Your task to perform on an android device: toggle show notifications on the lock screen Image 0: 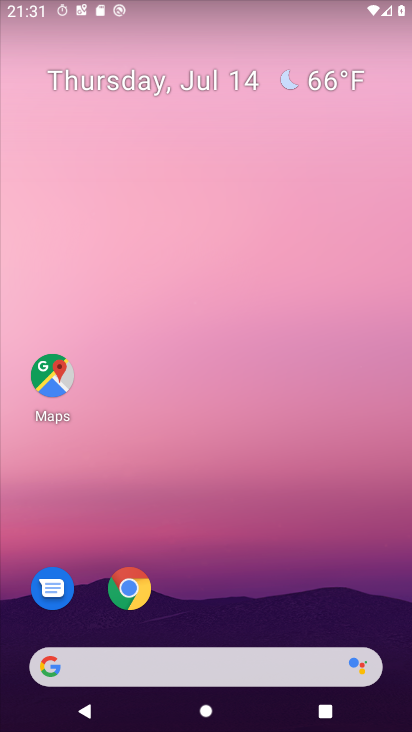
Step 0: drag from (361, 568) to (368, 39)
Your task to perform on an android device: toggle show notifications on the lock screen Image 1: 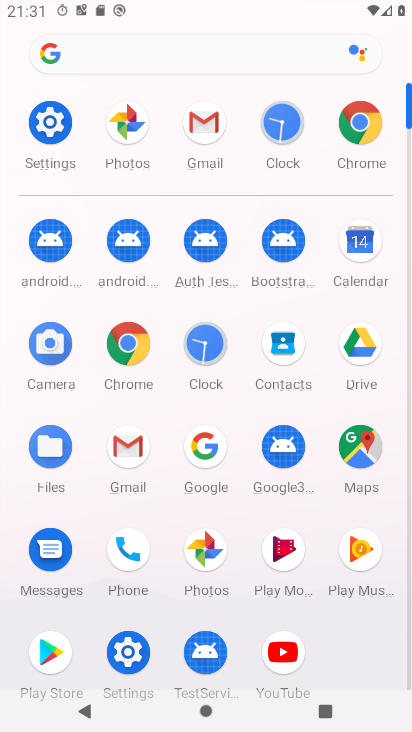
Step 1: click (54, 131)
Your task to perform on an android device: toggle show notifications on the lock screen Image 2: 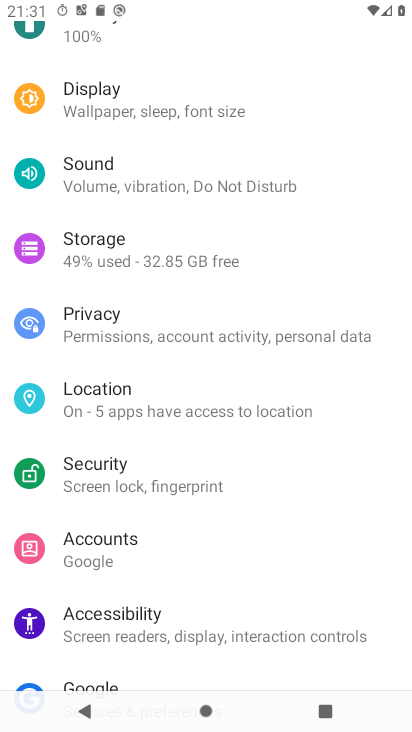
Step 2: drag from (338, 198) to (346, 292)
Your task to perform on an android device: toggle show notifications on the lock screen Image 3: 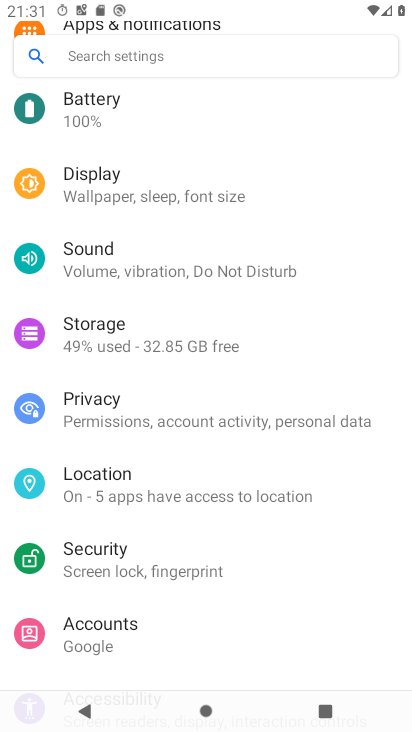
Step 3: drag from (343, 191) to (343, 316)
Your task to perform on an android device: toggle show notifications on the lock screen Image 4: 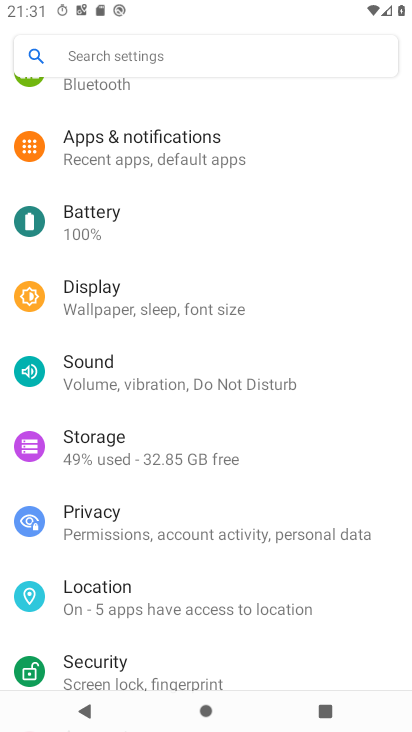
Step 4: drag from (343, 189) to (345, 286)
Your task to perform on an android device: toggle show notifications on the lock screen Image 5: 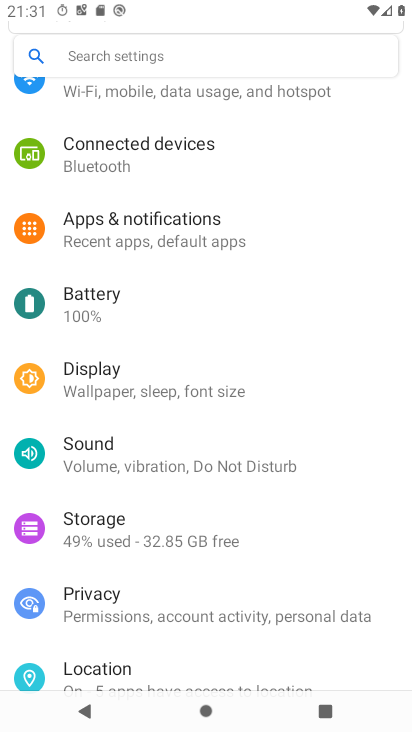
Step 5: drag from (345, 176) to (344, 310)
Your task to perform on an android device: toggle show notifications on the lock screen Image 6: 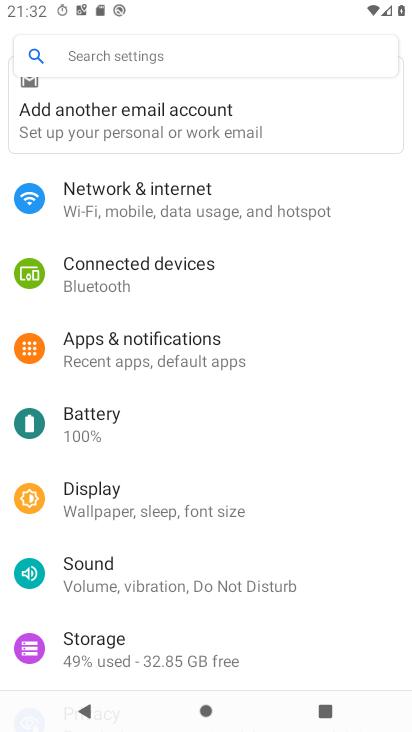
Step 6: drag from (368, 199) to (351, 359)
Your task to perform on an android device: toggle show notifications on the lock screen Image 7: 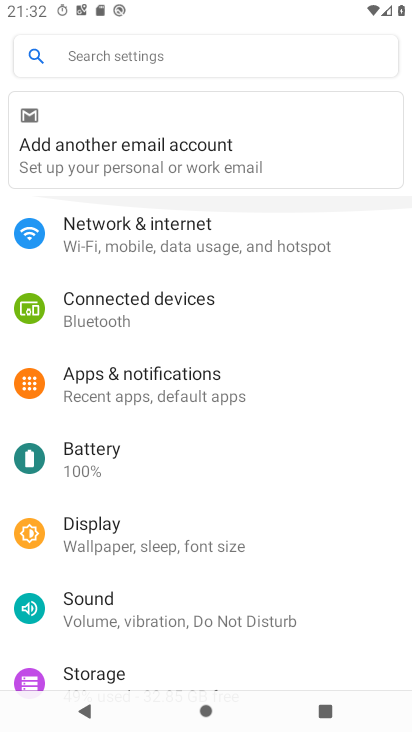
Step 7: drag from (342, 430) to (344, 359)
Your task to perform on an android device: toggle show notifications on the lock screen Image 8: 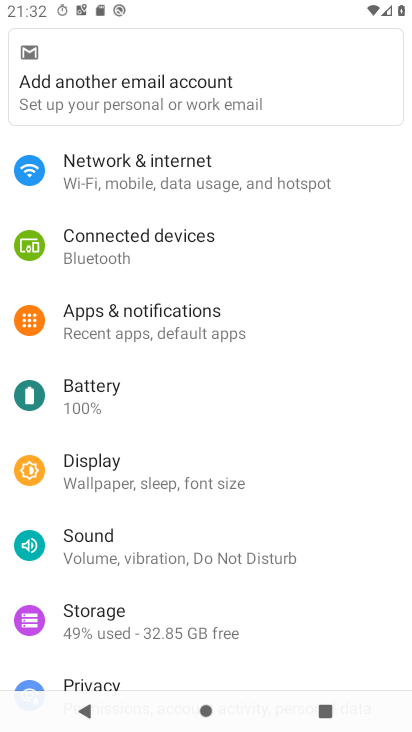
Step 8: drag from (341, 443) to (333, 347)
Your task to perform on an android device: toggle show notifications on the lock screen Image 9: 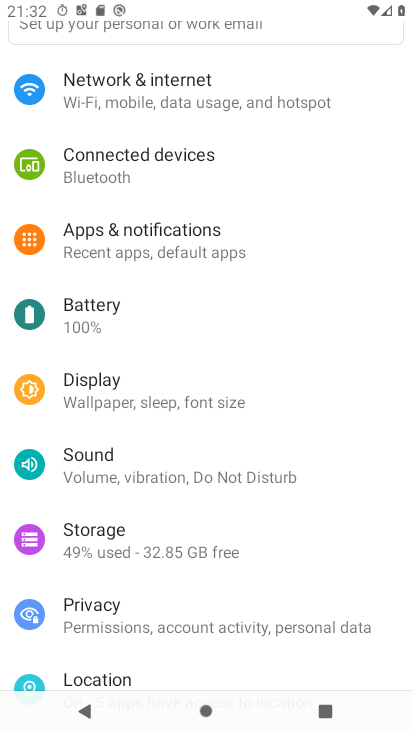
Step 9: drag from (333, 402) to (338, 231)
Your task to perform on an android device: toggle show notifications on the lock screen Image 10: 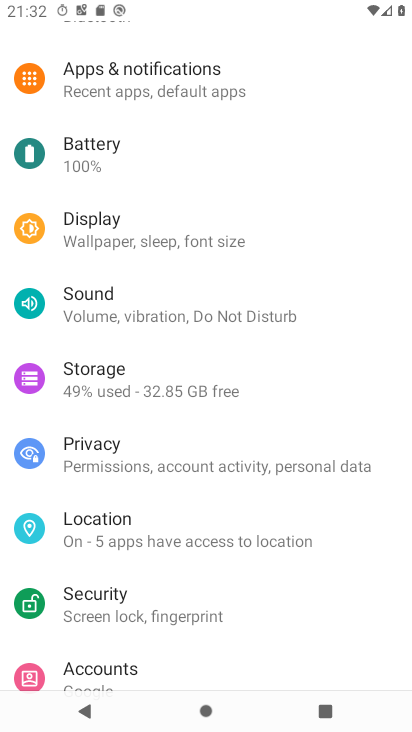
Step 10: click (205, 71)
Your task to perform on an android device: toggle show notifications on the lock screen Image 11: 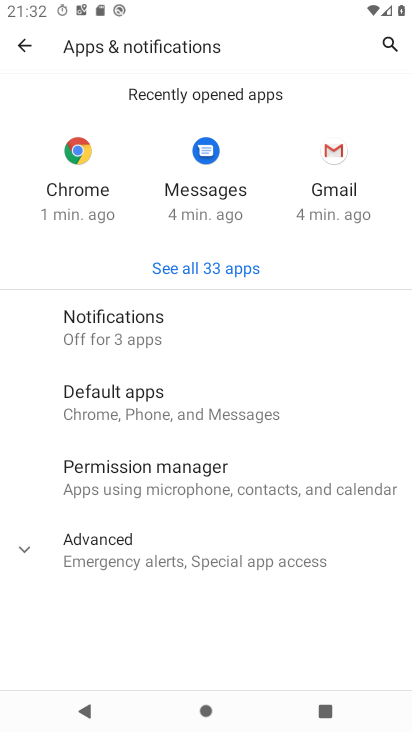
Step 11: click (149, 324)
Your task to perform on an android device: toggle show notifications on the lock screen Image 12: 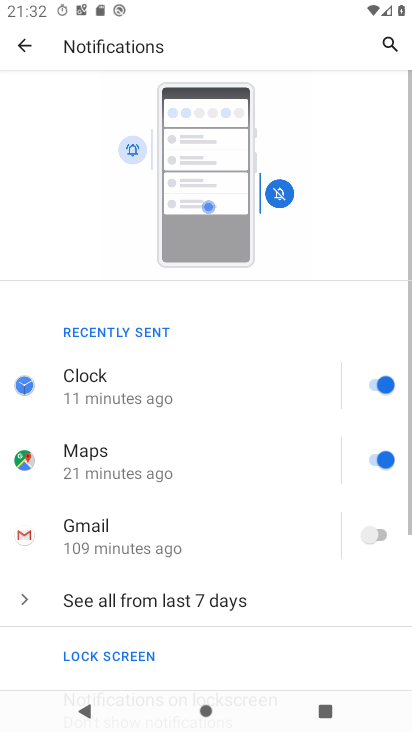
Step 12: drag from (283, 477) to (283, 384)
Your task to perform on an android device: toggle show notifications on the lock screen Image 13: 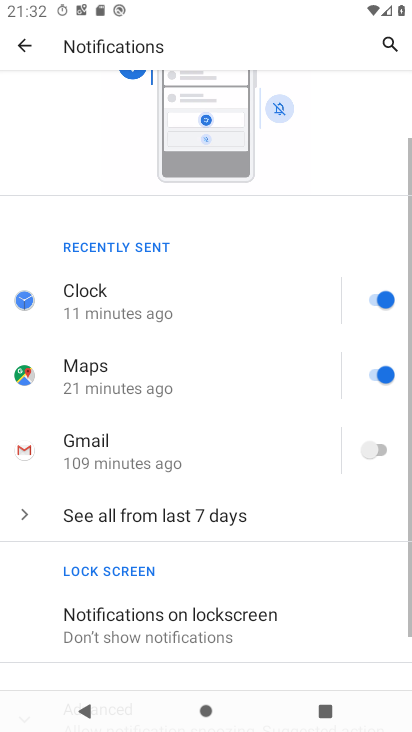
Step 13: drag from (275, 488) to (280, 341)
Your task to perform on an android device: toggle show notifications on the lock screen Image 14: 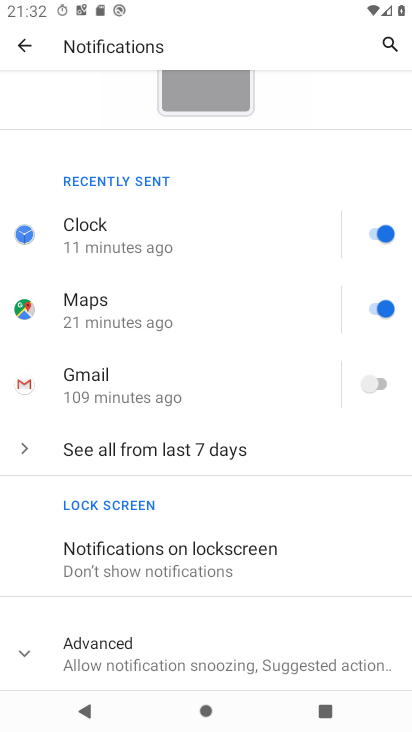
Step 14: drag from (314, 532) to (318, 387)
Your task to perform on an android device: toggle show notifications on the lock screen Image 15: 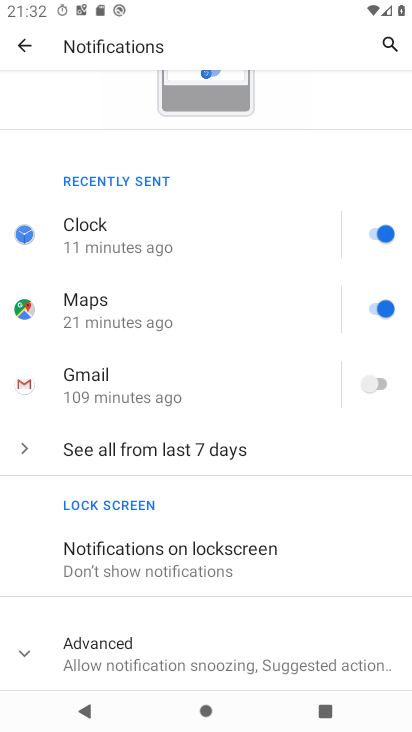
Step 15: click (207, 575)
Your task to perform on an android device: toggle show notifications on the lock screen Image 16: 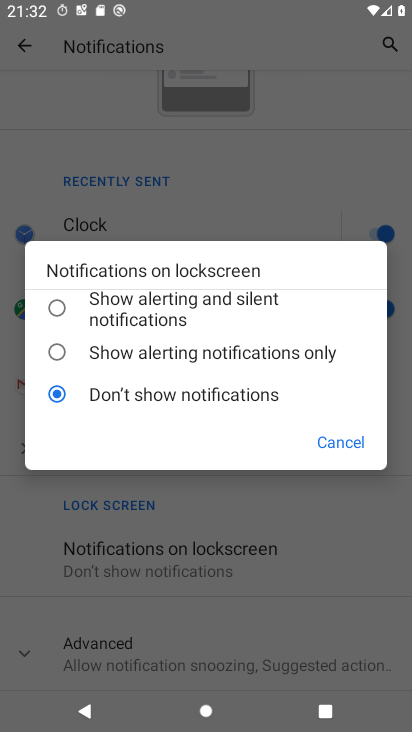
Step 16: click (45, 314)
Your task to perform on an android device: toggle show notifications on the lock screen Image 17: 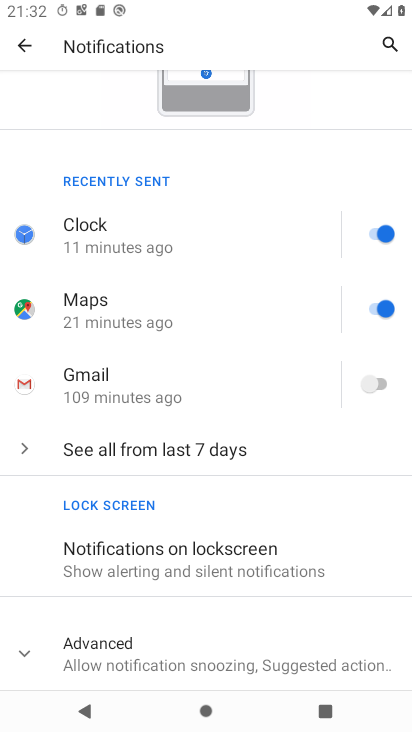
Step 17: task complete